Your task to perform on an android device: check out phone information Image 0: 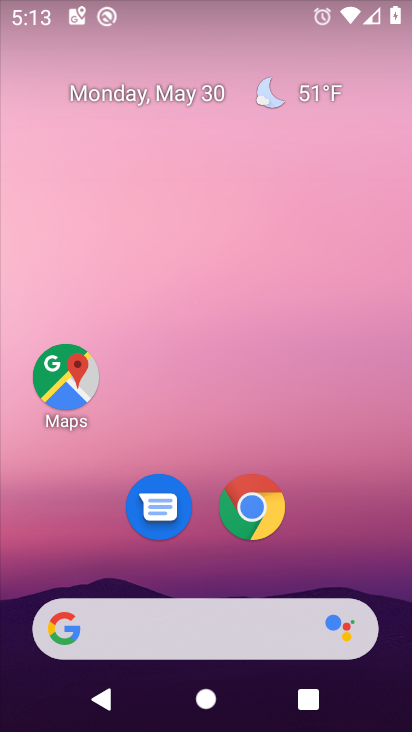
Step 0: drag from (356, 545) to (273, 129)
Your task to perform on an android device: check out phone information Image 1: 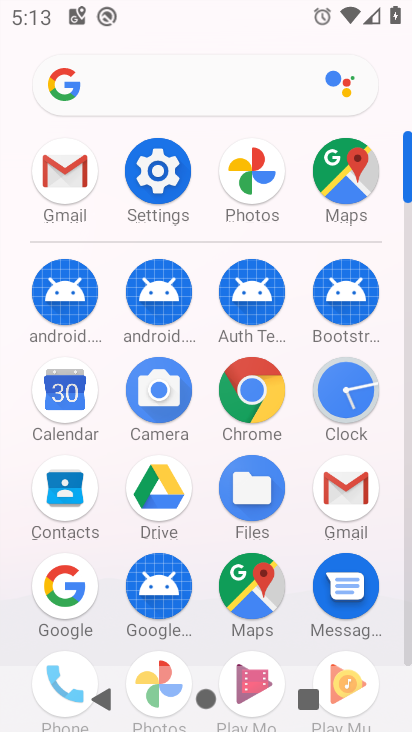
Step 1: click (409, 610)
Your task to perform on an android device: check out phone information Image 2: 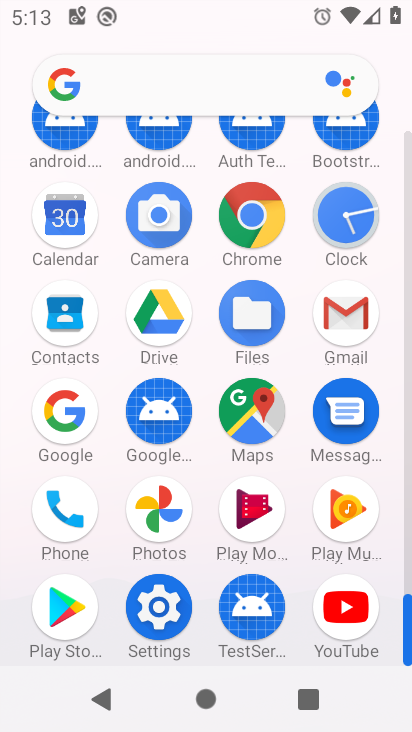
Step 2: click (61, 525)
Your task to perform on an android device: check out phone information Image 3: 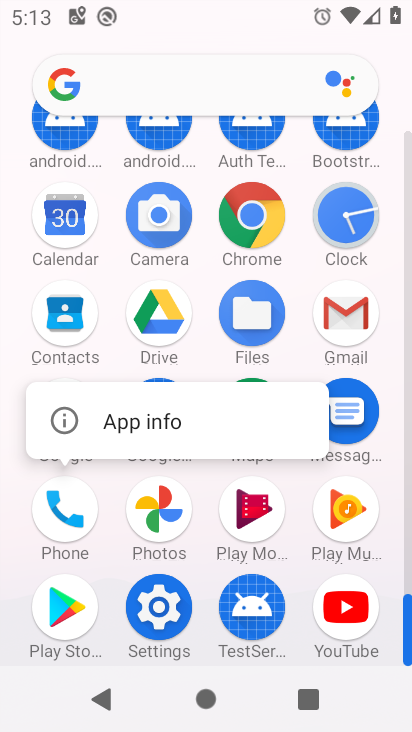
Step 3: click (102, 434)
Your task to perform on an android device: check out phone information Image 4: 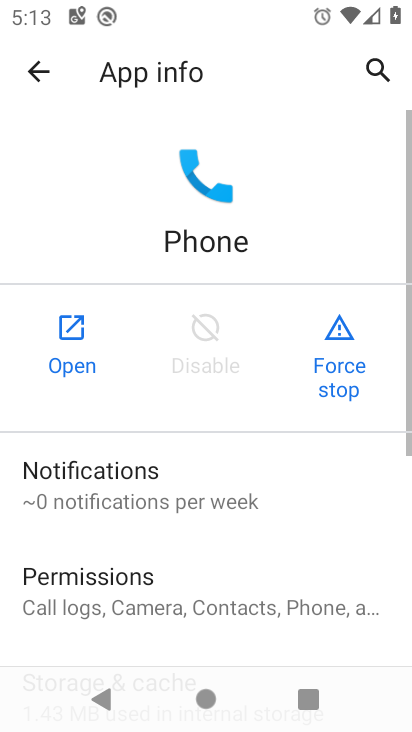
Step 4: task complete